Your task to perform on an android device: turn on notifications settings in the gmail app Image 0: 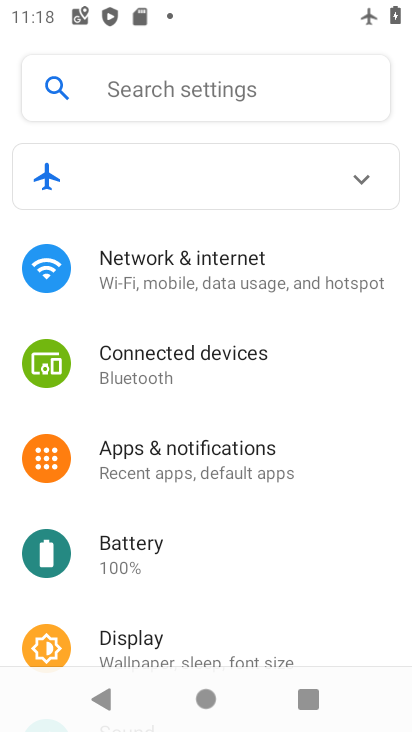
Step 0: press home button
Your task to perform on an android device: turn on notifications settings in the gmail app Image 1: 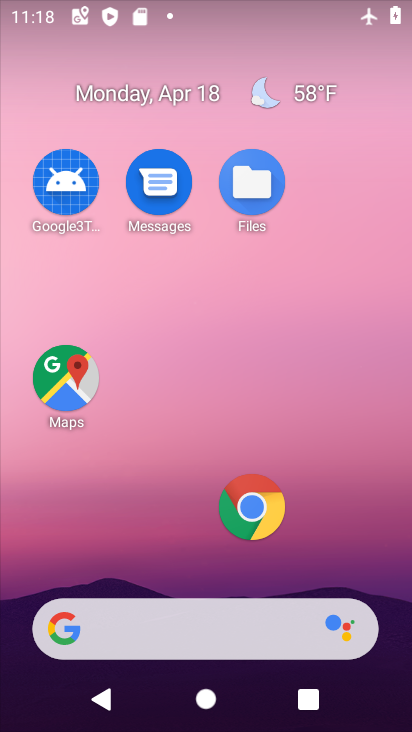
Step 1: drag from (206, 570) to (315, 13)
Your task to perform on an android device: turn on notifications settings in the gmail app Image 2: 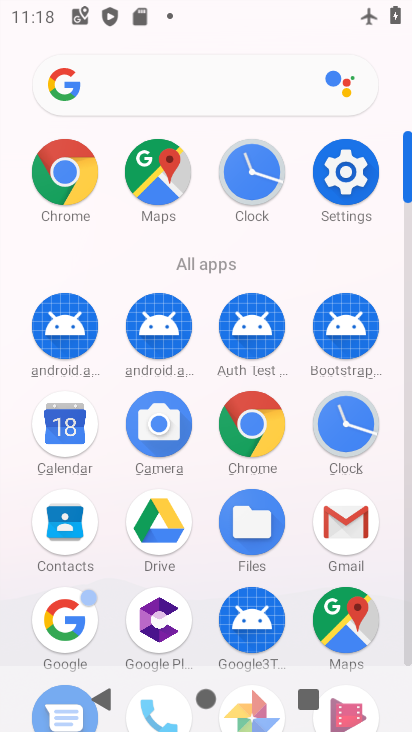
Step 2: click (355, 499)
Your task to perform on an android device: turn on notifications settings in the gmail app Image 3: 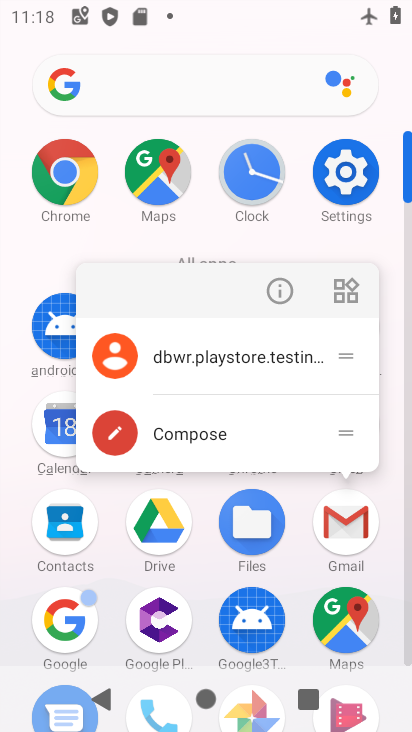
Step 3: click (345, 545)
Your task to perform on an android device: turn on notifications settings in the gmail app Image 4: 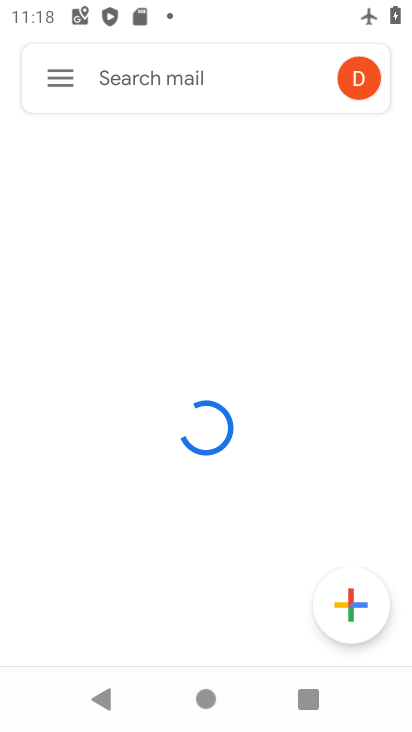
Step 4: click (60, 78)
Your task to perform on an android device: turn on notifications settings in the gmail app Image 5: 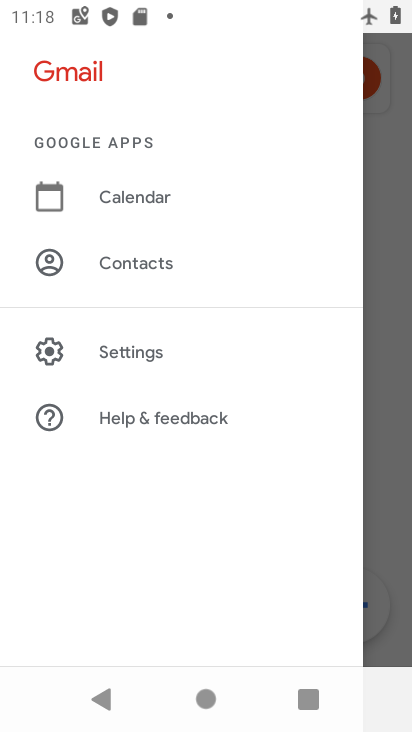
Step 5: click (135, 354)
Your task to perform on an android device: turn on notifications settings in the gmail app Image 6: 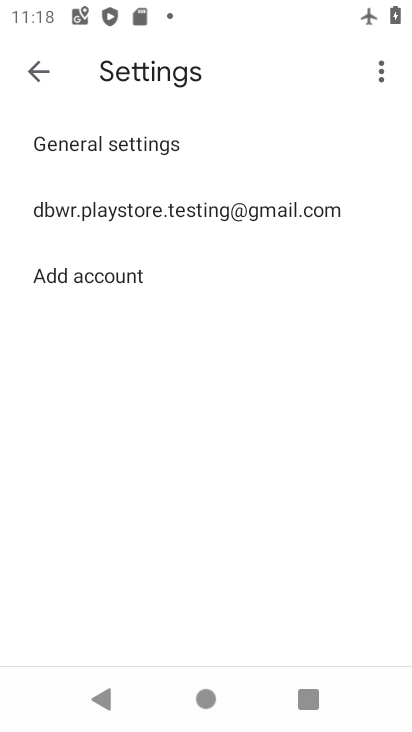
Step 6: click (132, 147)
Your task to perform on an android device: turn on notifications settings in the gmail app Image 7: 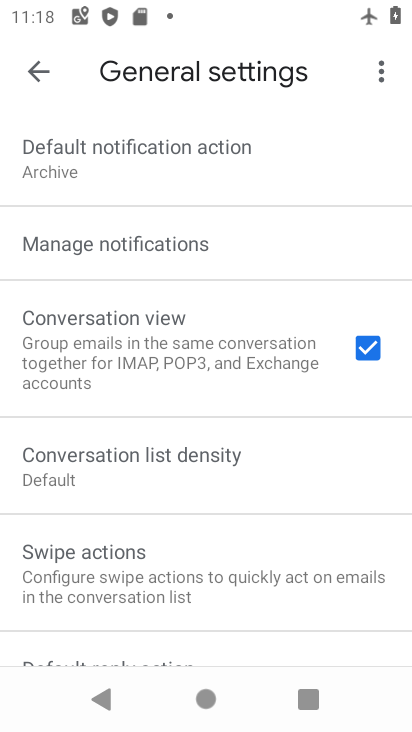
Step 7: click (99, 233)
Your task to perform on an android device: turn on notifications settings in the gmail app Image 8: 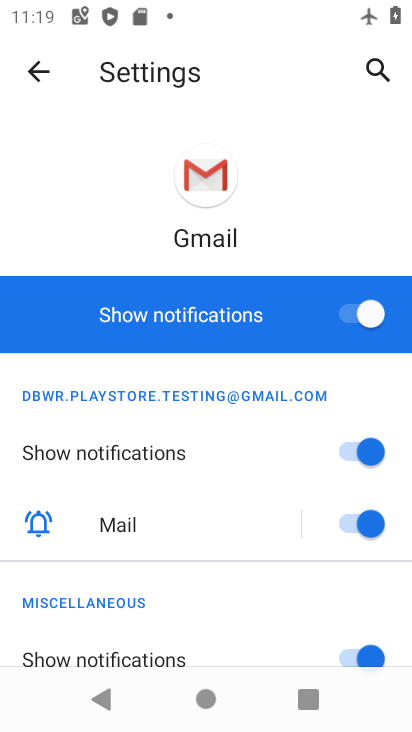
Step 8: task complete